Your task to perform on an android device: add a contact in the contacts app Image 0: 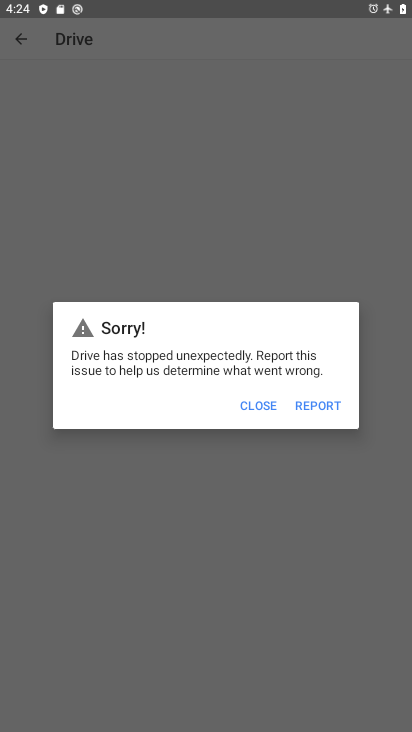
Step 0: press home button
Your task to perform on an android device: add a contact in the contacts app Image 1: 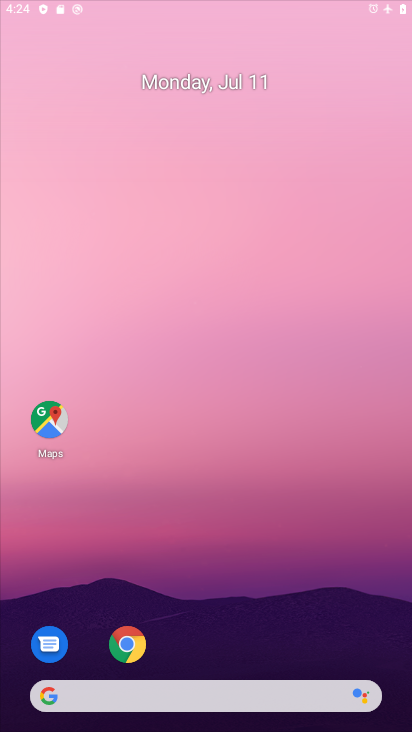
Step 1: drag from (290, 722) to (247, 40)
Your task to perform on an android device: add a contact in the contacts app Image 2: 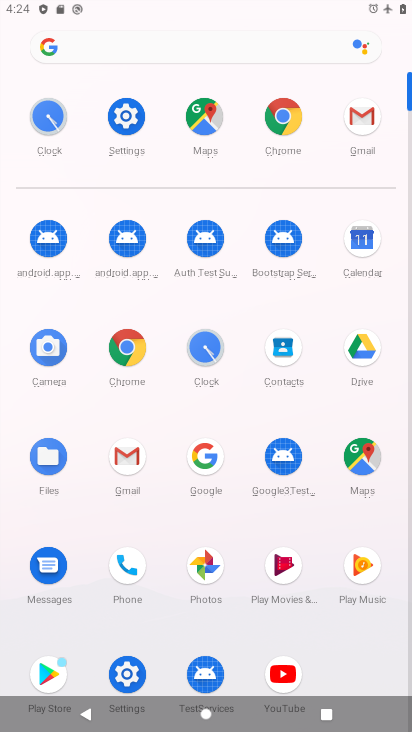
Step 2: click (289, 348)
Your task to perform on an android device: add a contact in the contacts app Image 3: 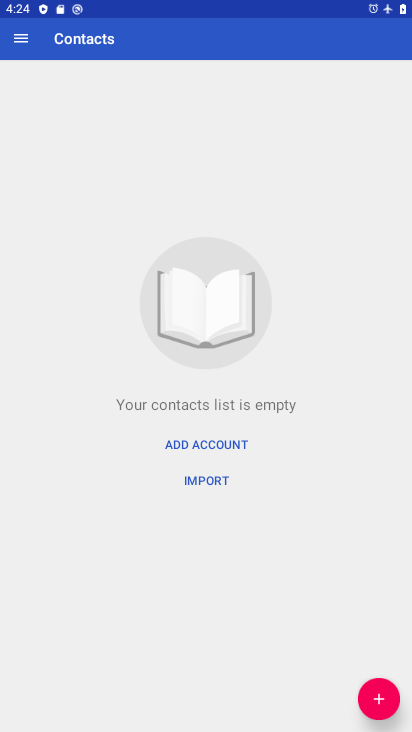
Step 3: click (396, 702)
Your task to perform on an android device: add a contact in the contacts app Image 4: 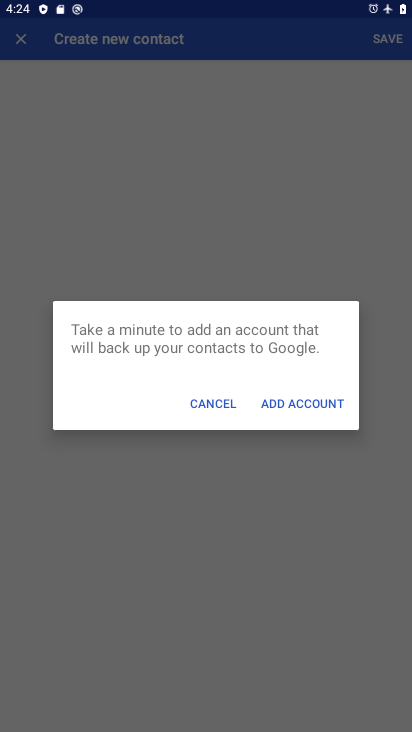
Step 4: click (277, 398)
Your task to perform on an android device: add a contact in the contacts app Image 5: 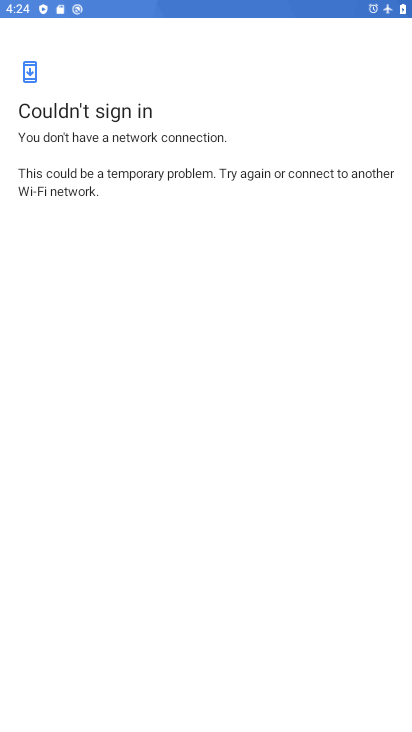
Step 5: press back button
Your task to perform on an android device: add a contact in the contacts app Image 6: 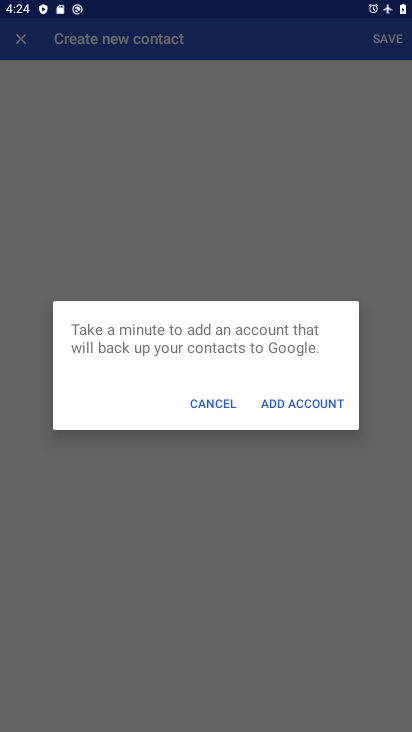
Step 6: click (211, 400)
Your task to perform on an android device: add a contact in the contacts app Image 7: 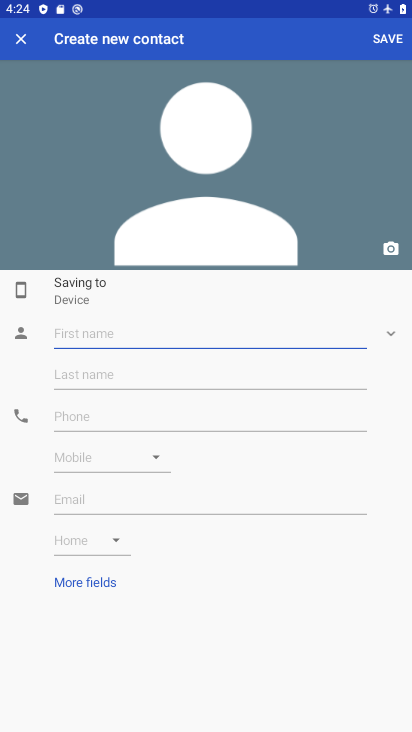
Step 7: click (237, 332)
Your task to perform on an android device: add a contact in the contacts app Image 8: 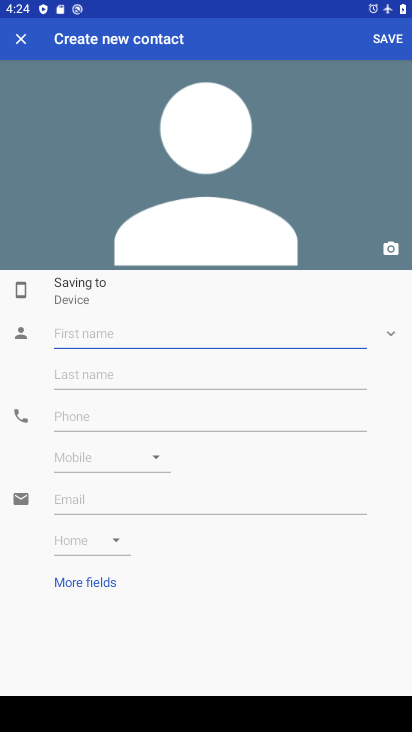
Step 8: type "Anuj "
Your task to perform on an android device: add a contact in the contacts app Image 9: 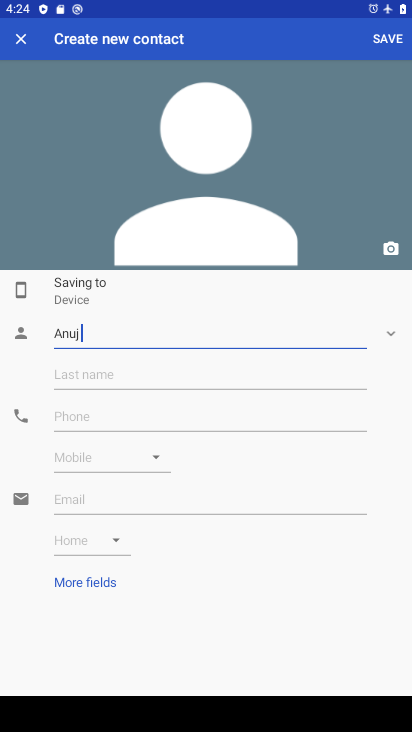
Step 9: click (101, 411)
Your task to perform on an android device: add a contact in the contacts app Image 10: 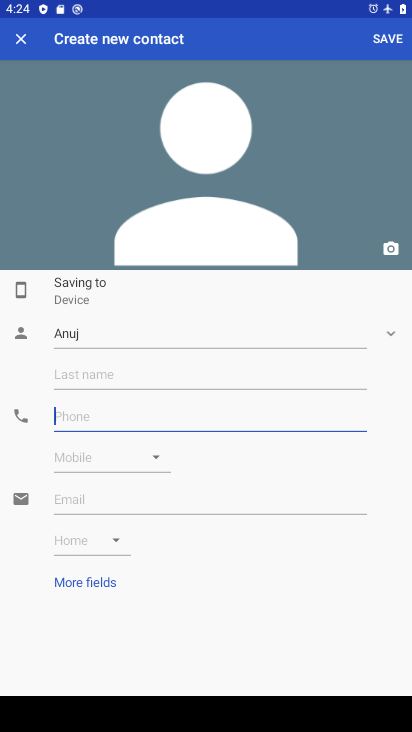
Step 10: type "9899645676"
Your task to perform on an android device: add a contact in the contacts app Image 11: 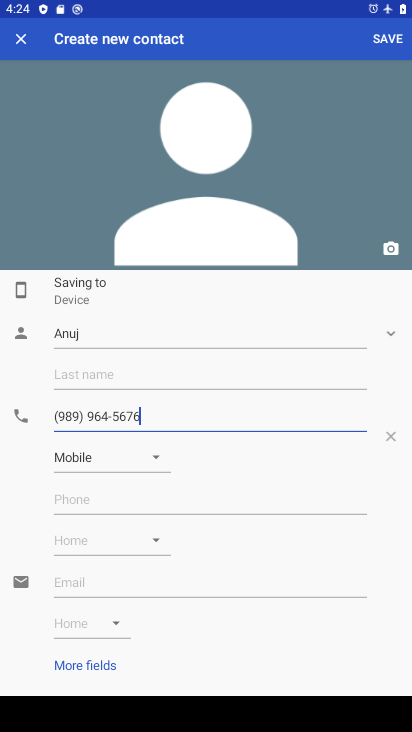
Step 11: click (394, 35)
Your task to perform on an android device: add a contact in the contacts app Image 12: 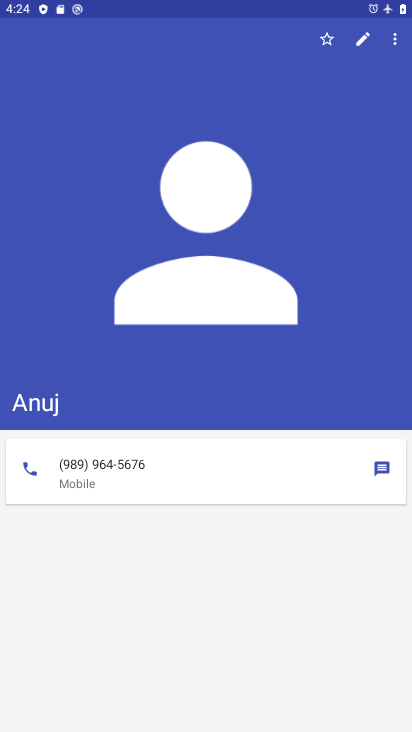
Step 12: task complete